Your task to perform on an android device: What's the weather going to be tomorrow? Image 0: 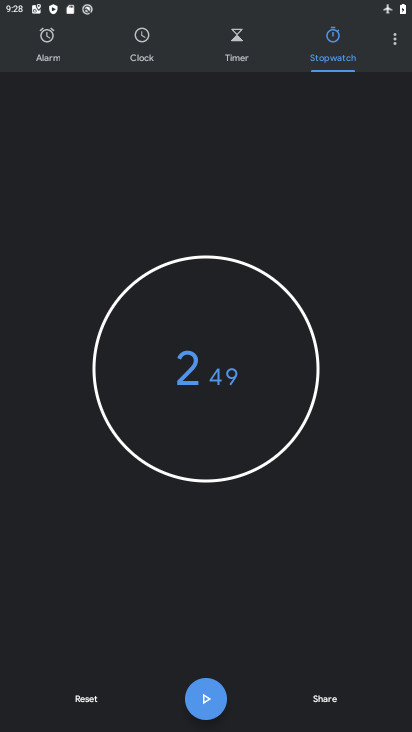
Step 0: press home button
Your task to perform on an android device: What's the weather going to be tomorrow? Image 1: 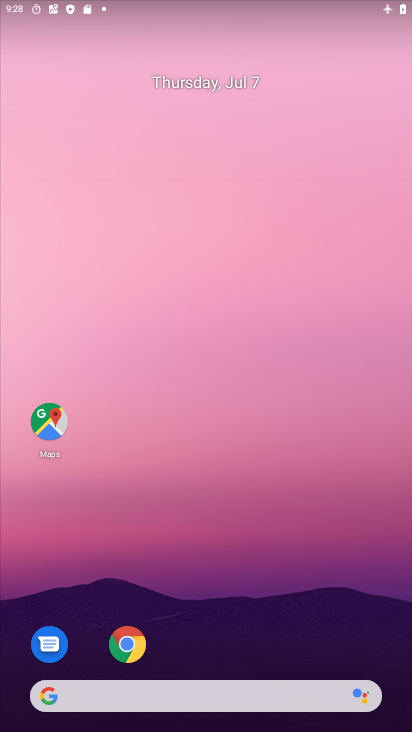
Step 1: click (156, 698)
Your task to perform on an android device: What's the weather going to be tomorrow? Image 2: 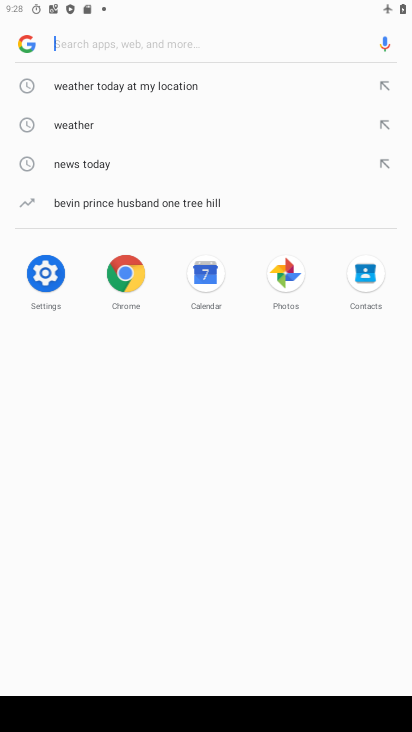
Step 2: click (83, 129)
Your task to perform on an android device: What's the weather going to be tomorrow? Image 3: 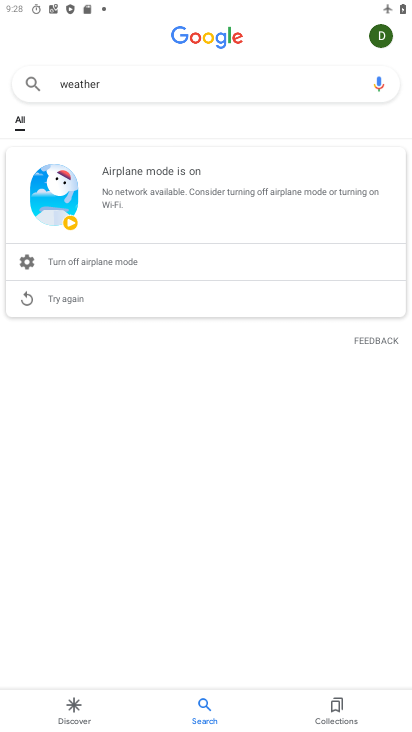
Step 3: task complete